Your task to perform on an android device: Go to notification settings Image 0: 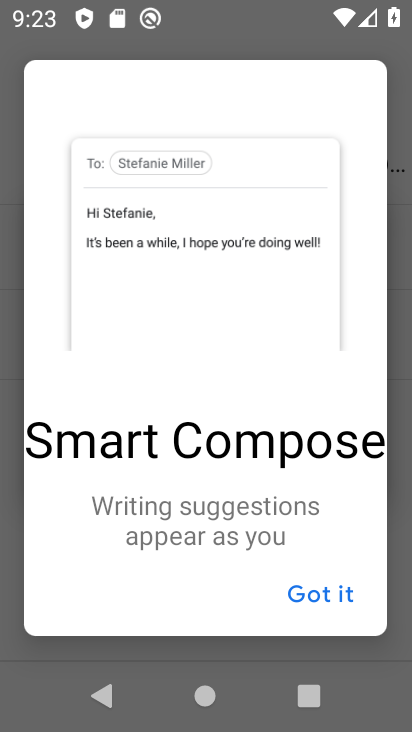
Step 0: press home button
Your task to perform on an android device: Go to notification settings Image 1: 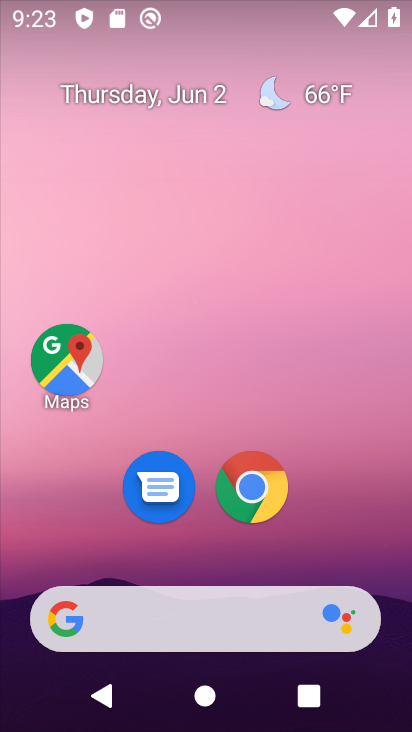
Step 1: drag from (237, 716) to (239, 110)
Your task to perform on an android device: Go to notification settings Image 2: 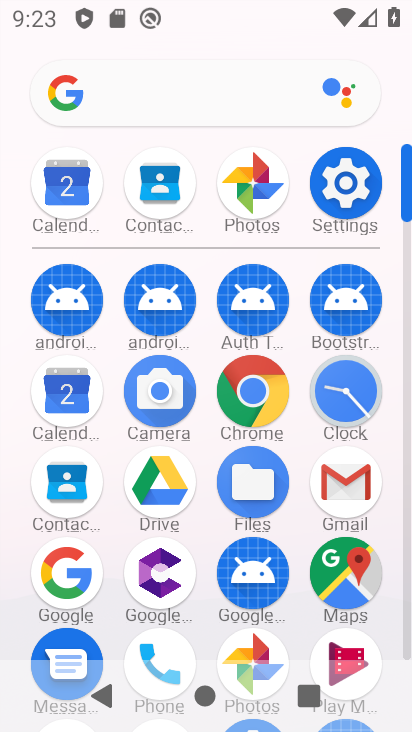
Step 2: click (351, 200)
Your task to perform on an android device: Go to notification settings Image 3: 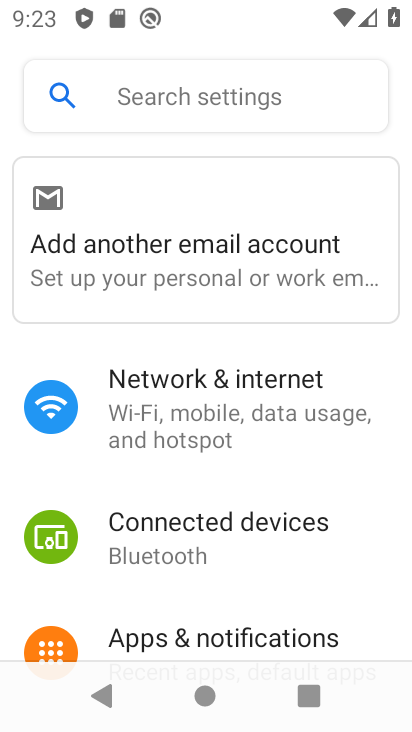
Step 3: click (170, 636)
Your task to perform on an android device: Go to notification settings Image 4: 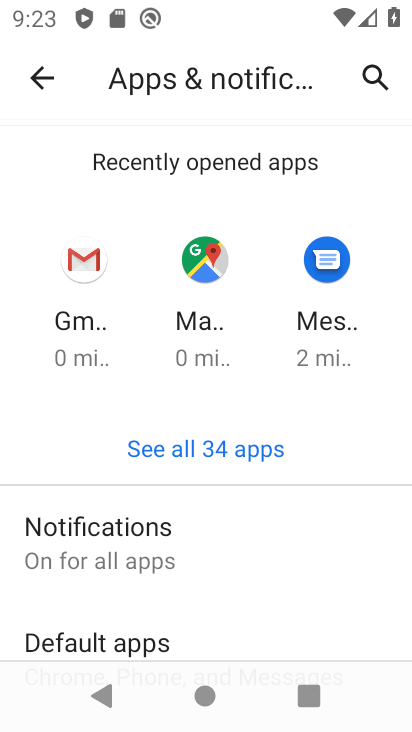
Step 4: click (99, 552)
Your task to perform on an android device: Go to notification settings Image 5: 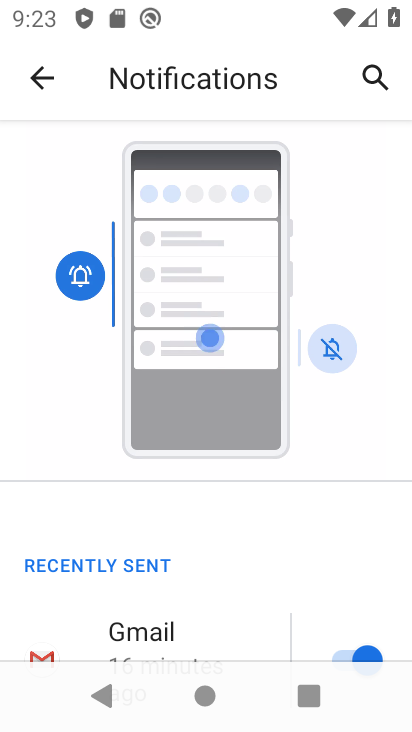
Step 5: task complete